Your task to perform on an android device: find photos in the google photos app Image 0: 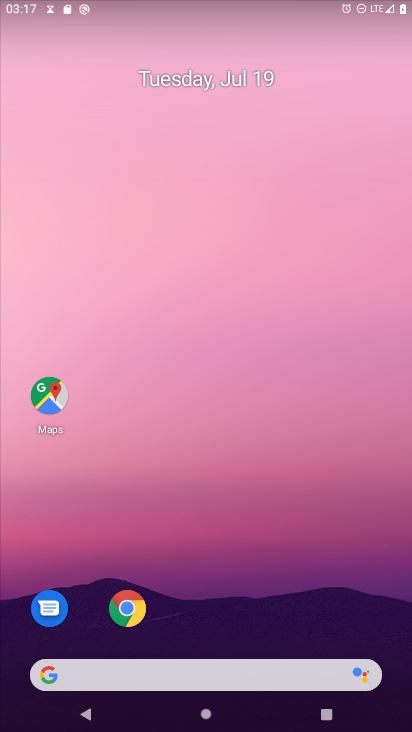
Step 0: drag from (221, 542) to (295, 43)
Your task to perform on an android device: find photos in the google photos app Image 1: 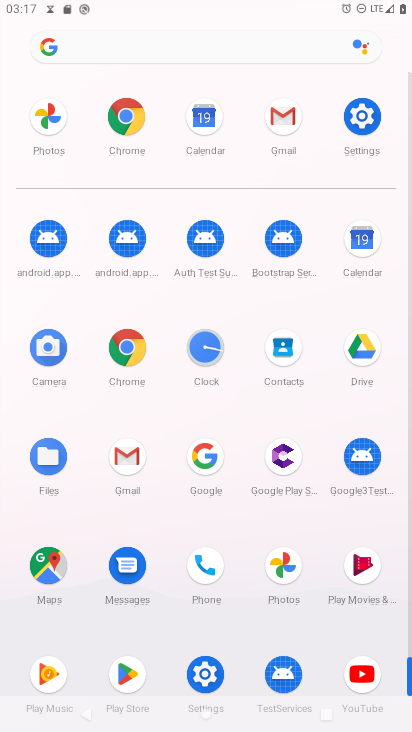
Step 1: click (291, 562)
Your task to perform on an android device: find photos in the google photos app Image 2: 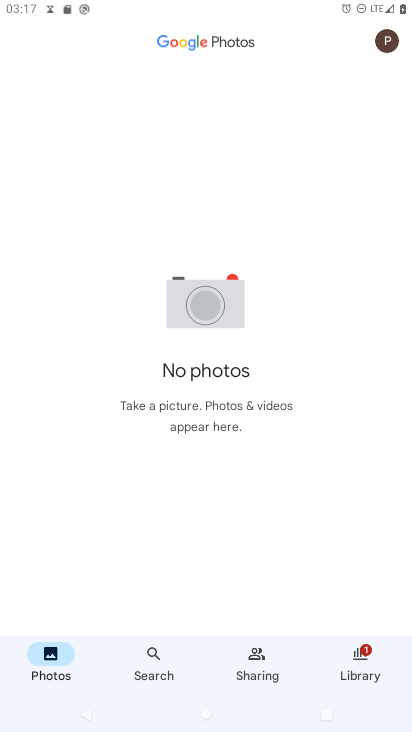
Step 2: task complete